Your task to perform on an android device: toggle show notifications on the lock screen Image 0: 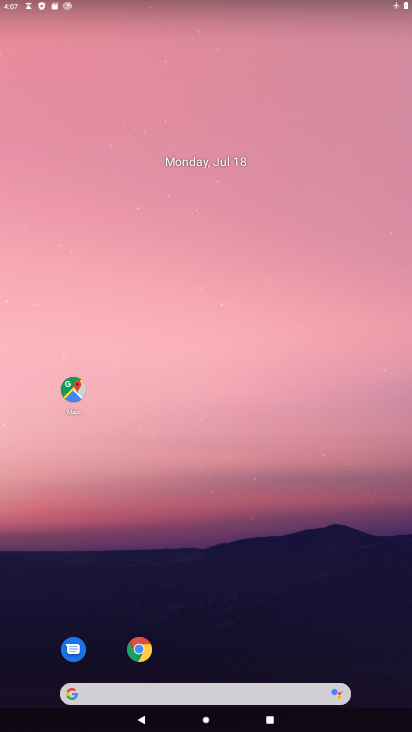
Step 0: press home button
Your task to perform on an android device: toggle show notifications on the lock screen Image 1: 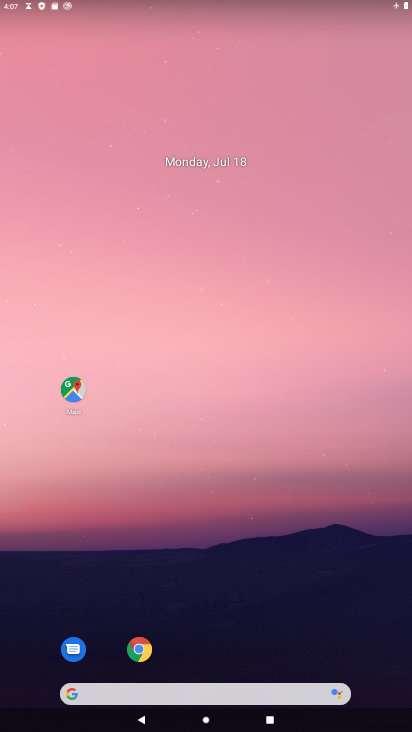
Step 1: drag from (333, 631) to (409, 33)
Your task to perform on an android device: toggle show notifications on the lock screen Image 2: 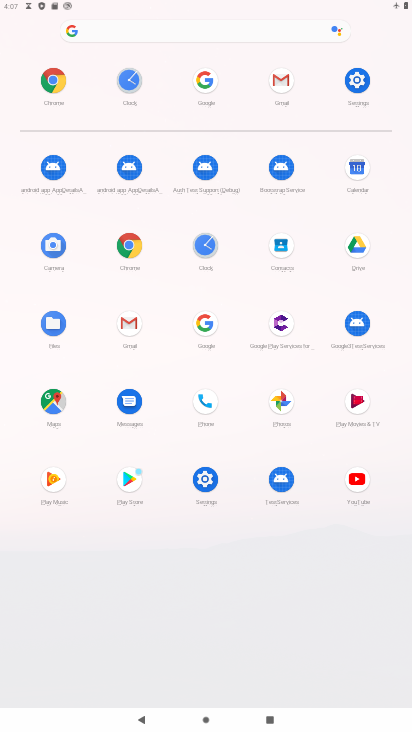
Step 2: click (363, 81)
Your task to perform on an android device: toggle show notifications on the lock screen Image 3: 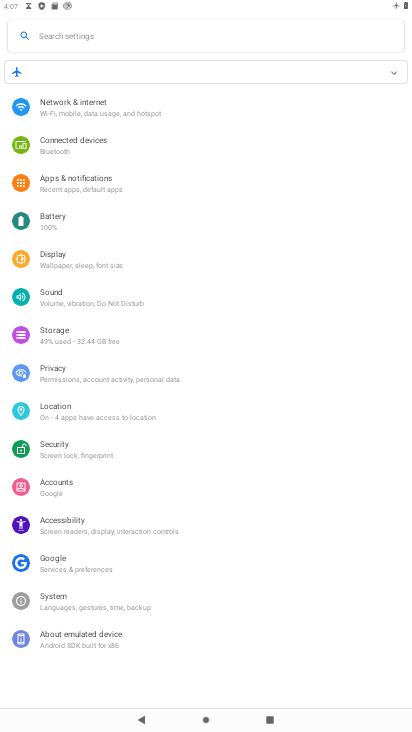
Step 3: click (82, 180)
Your task to perform on an android device: toggle show notifications on the lock screen Image 4: 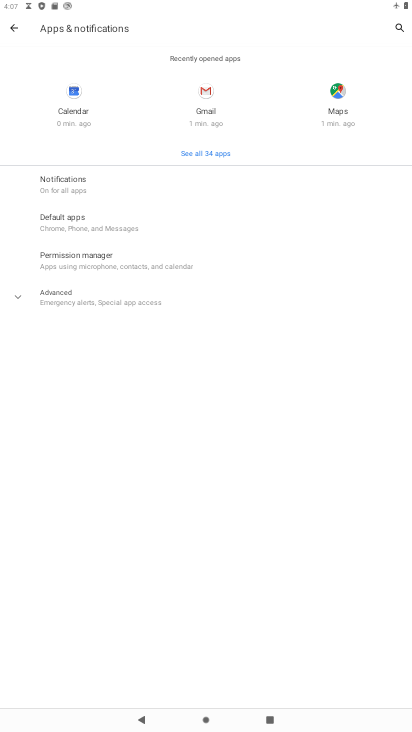
Step 4: click (79, 183)
Your task to perform on an android device: toggle show notifications on the lock screen Image 5: 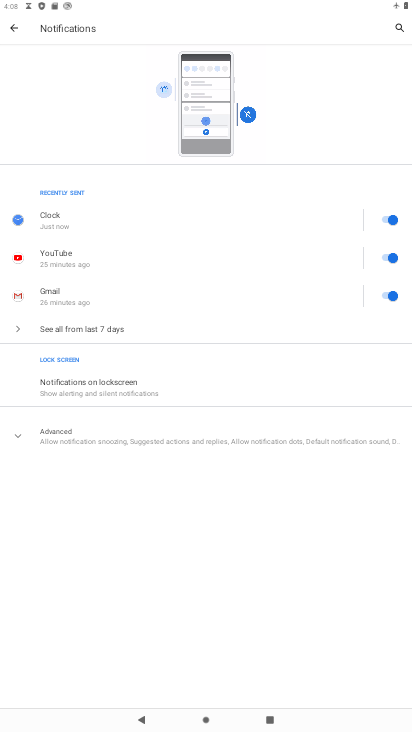
Step 5: click (112, 383)
Your task to perform on an android device: toggle show notifications on the lock screen Image 6: 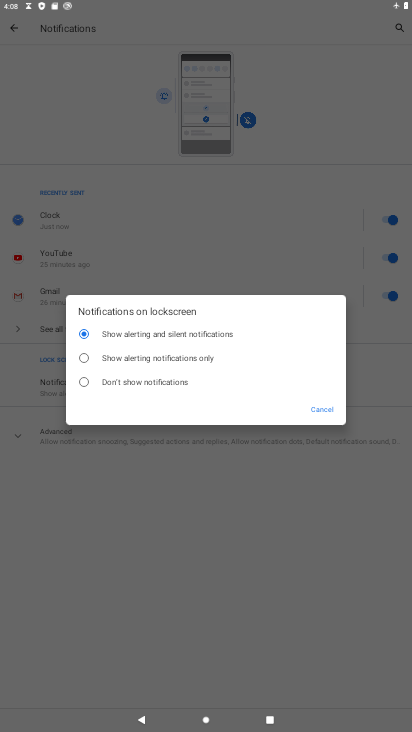
Step 6: task complete